Your task to perform on an android device: Open maps Image 0: 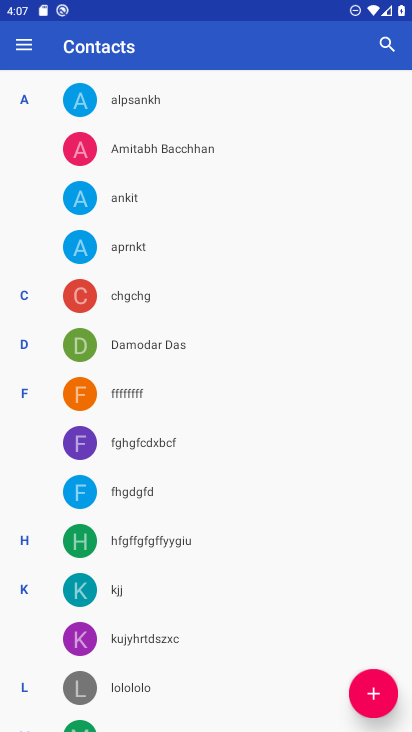
Step 0: press home button
Your task to perform on an android device: Open maps Image 1: 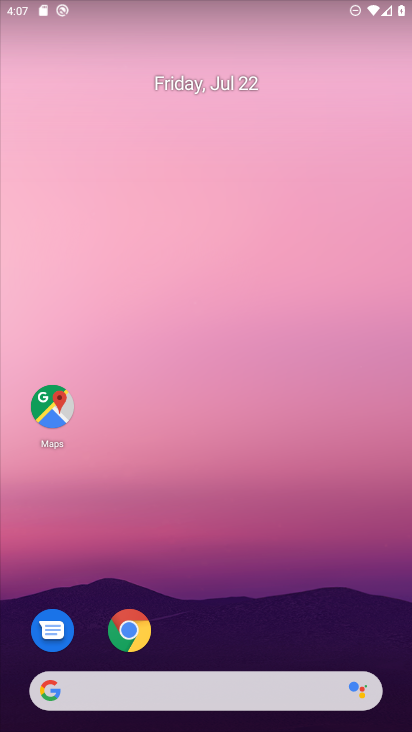
Step 1: click (48, 396)
Your task to perform on an android device: Open maps Image 2: 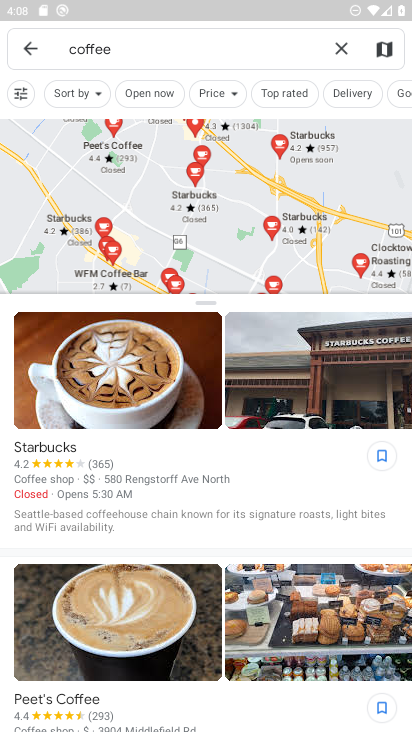
Step 2: click (27, 44)
Your task to perform on an android device: Open maps Image 3: 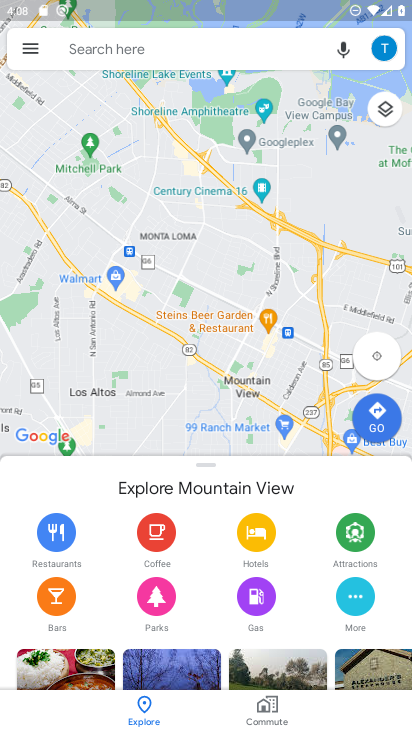
Step 3: task complete